Your task to perform on an android device: turn off picture-in-picture Image 0: 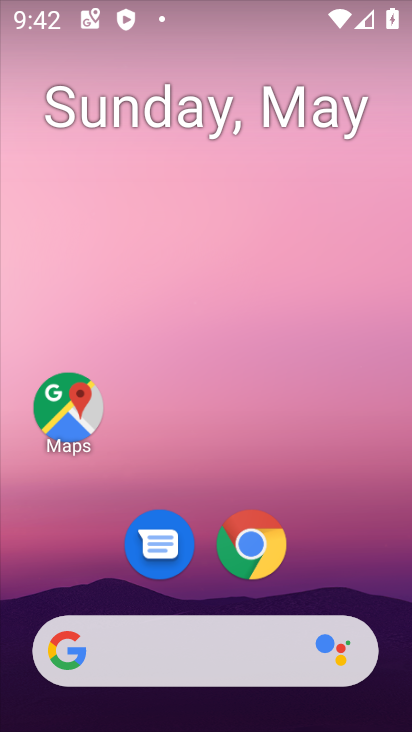
Step 0: click (273, 538)
Your task to perform on an android device: turn off picture-in-picture Image 1: 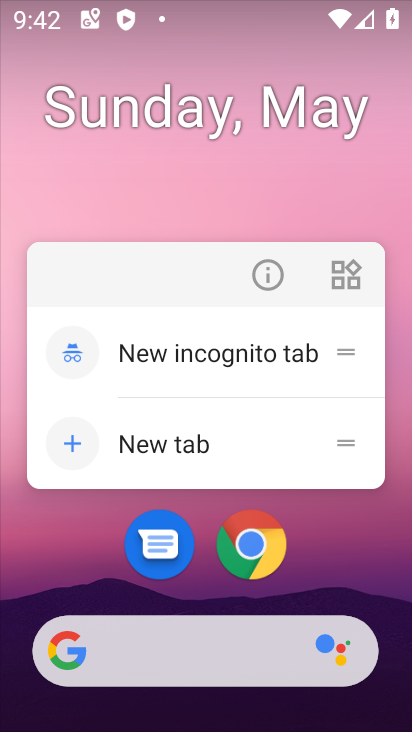
Step 1: click (259, 276)
Your task to perform on an android device: turn off picture-in-picture Image 2: 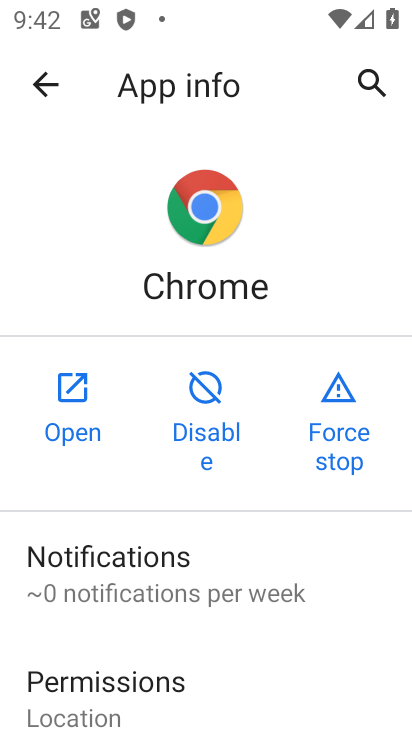
Step 2: drag from (265, 568) to (238, 84)
Your task to perform on an android device: turn off picture-in-picture Image 3: 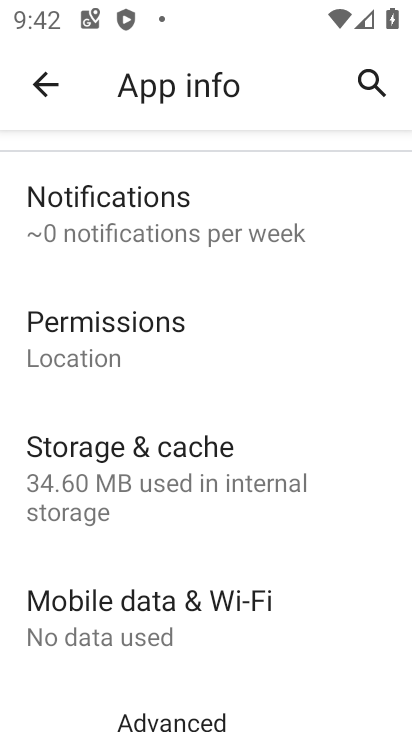
Step 3: drag from (328, 560) to (374, 0)
Your task to perform on an android device: turn off picture-in-picture Image 4: 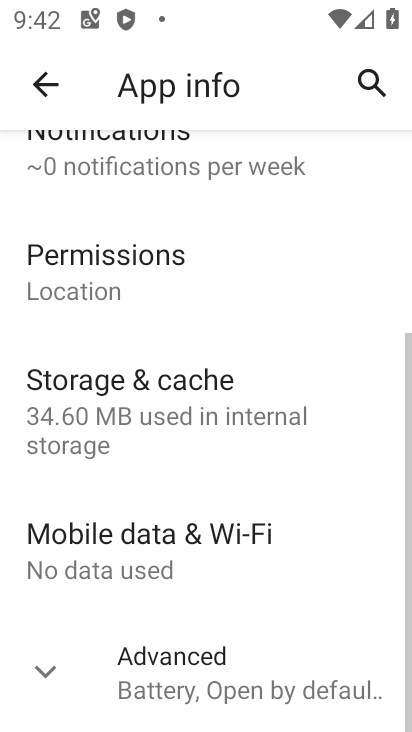
Step 4: drag from (175, 259) to (287, 712)
Your task to perform on an android device: turn off picture-in-picture Image 5: 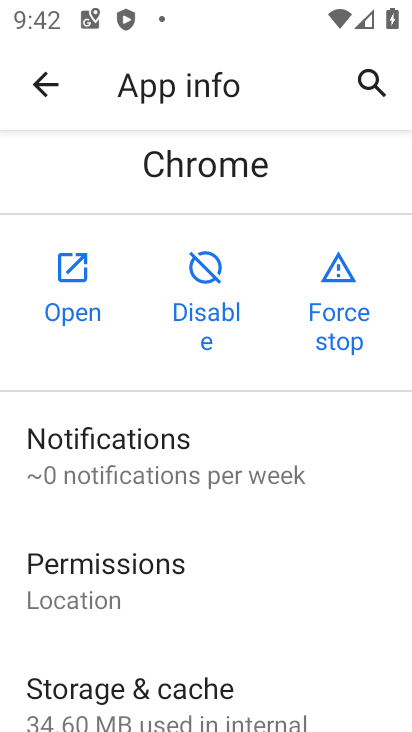
Step 5: drag from (245, 652) to (322, 218)
Your task to perform on an android device: turn off picture-in-picture Image 6: 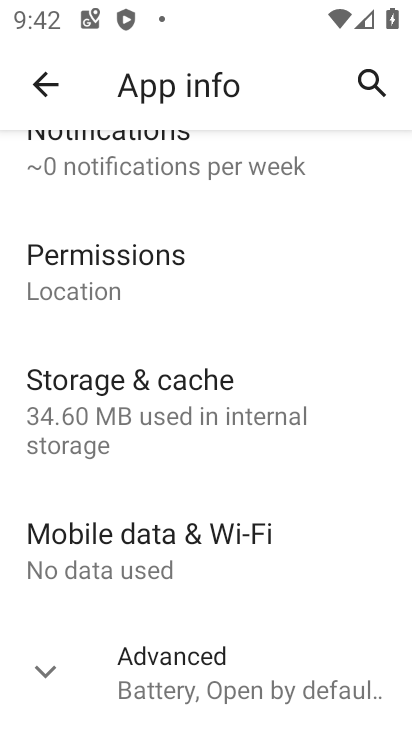
Step 6: click (201, 708)
Your task to perform on an android device: turn off picture-in-picture Image 7: 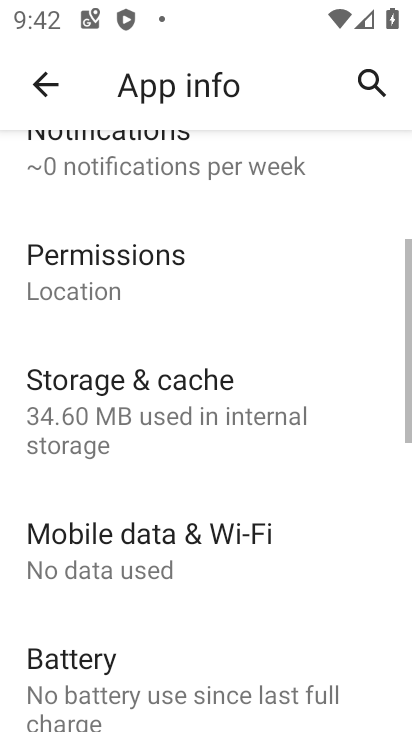
Step 7: drag from (211, 624) to (296, 188)
Your task to perform on an android device: turn off picture-in-picture Image 8: 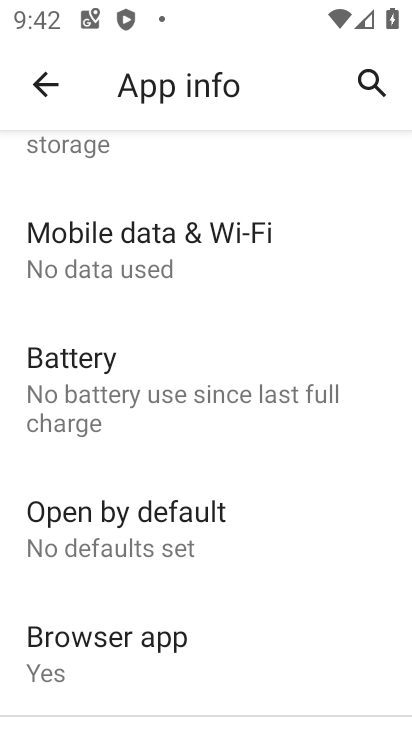
Step 8: drag from (190, 649) to (269, 189)
Your task to perform on an android device: turn off picture-in-picture Image 9: 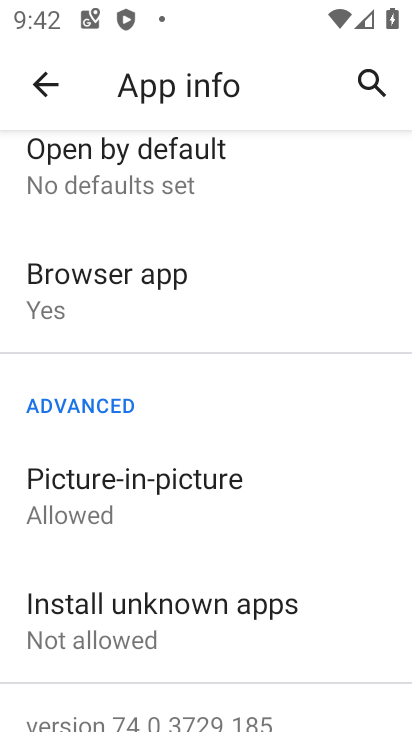
Step 9: click (158, 516)
Your task to perform on an android device: turn off picture-in-picture Image 10: 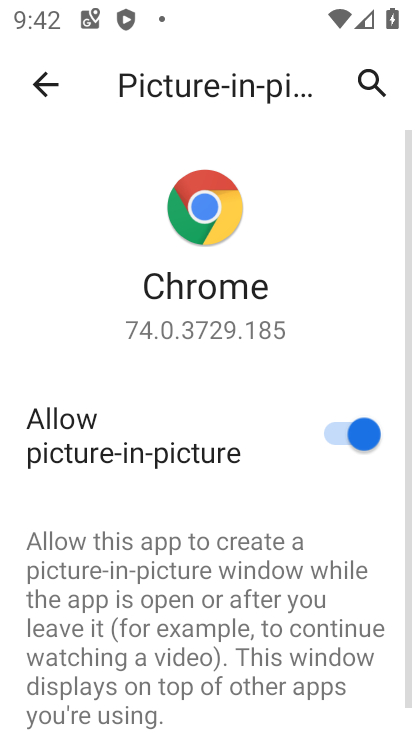
Step 10: click (368, 428)
Your task to perform on an android device: turn off picture-in-picture Image 11: 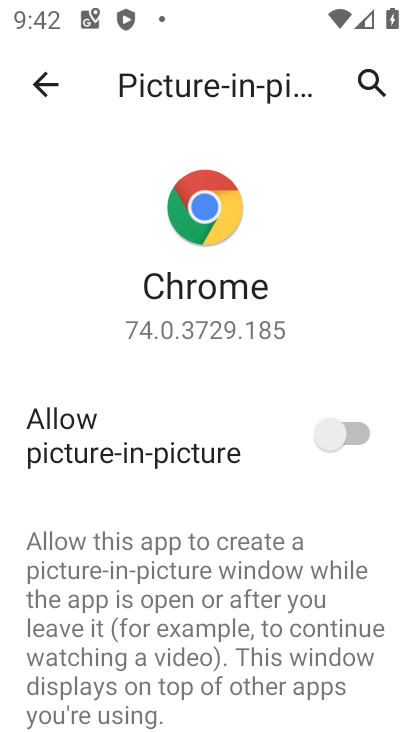
Step 11: task complete